Your task to perform on an android device: check battery use Image 0: 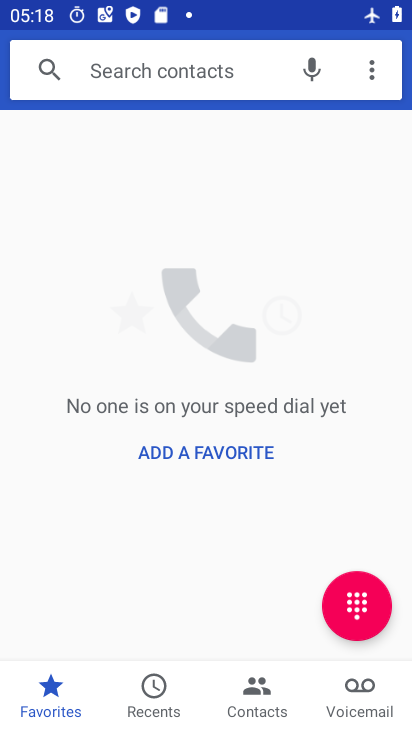
Step 0: press home button
Your task to perform on an android device: check battery use Image 1: 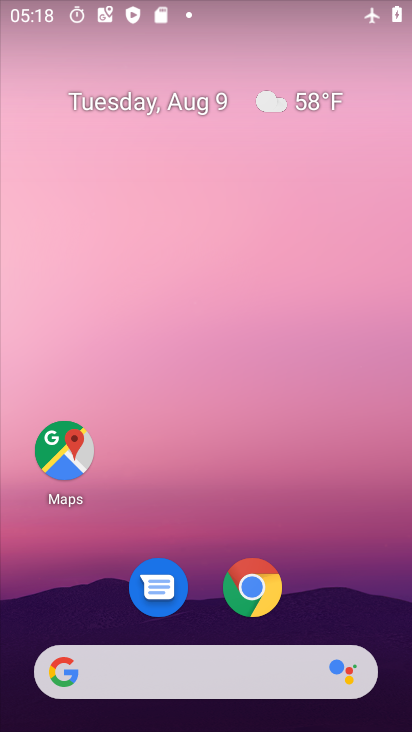
Step 1: click (254, 79)
Your task to perform on an android device: check battery use Image 2: 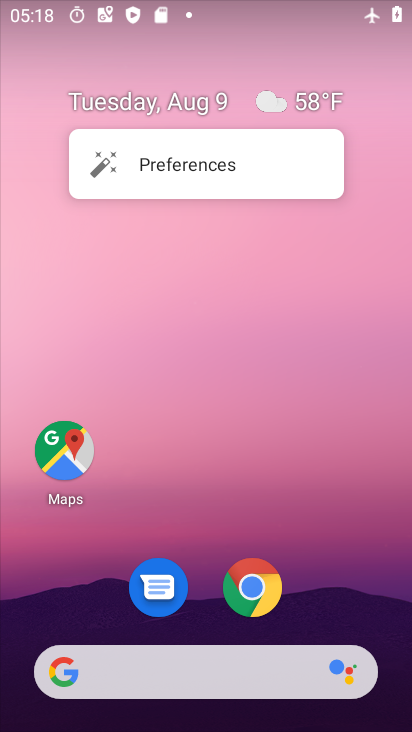
Step 2: drag from (219, 665) to (199, 59)
Your task to perform on an android device: check battery use Image 3: 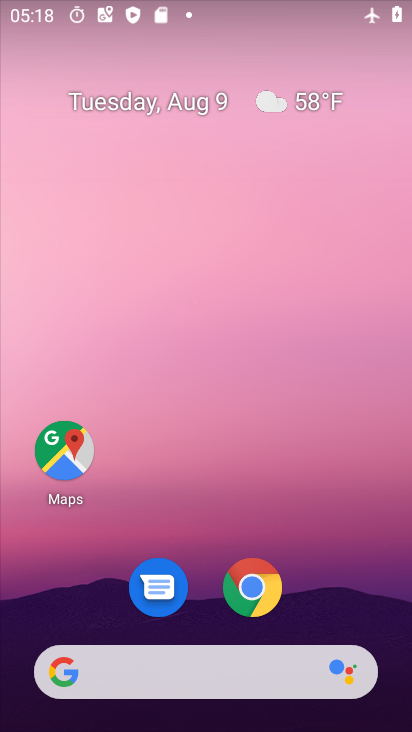
Step 3: drag from (192, 680) to (227, 0)
Your task to perform on an android device: check battery use Image 4: 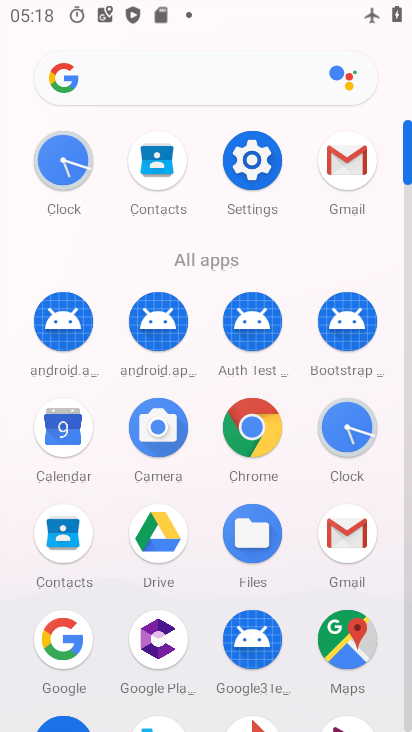
Step 4: click (263, 177)
Your task to perform on an android device: check battery use Image 5: 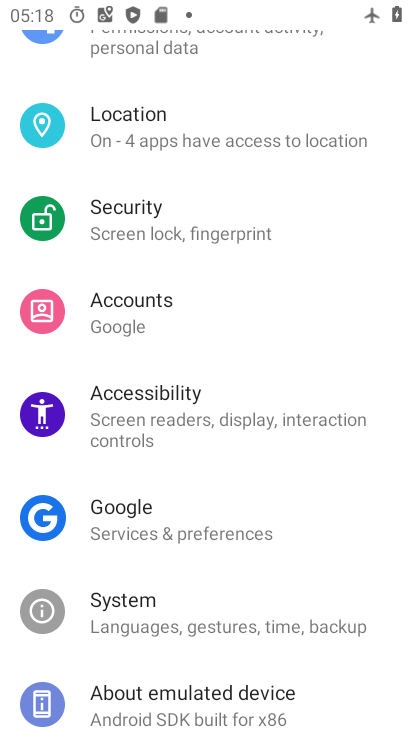
Step 5: drag from (209, 232) to (180, 613)
Your task to perform on an android device: check battery use Image 6: 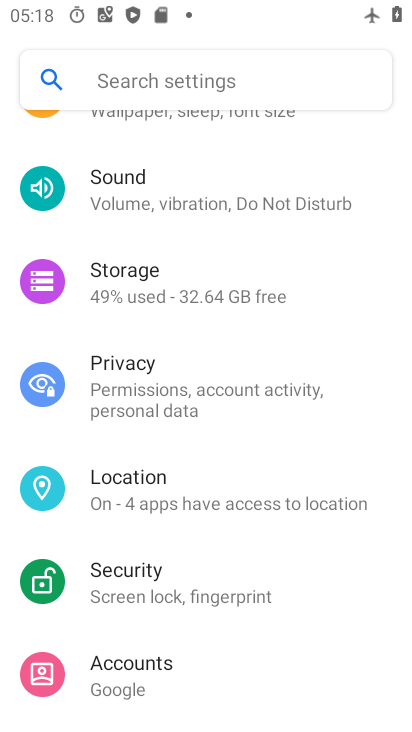
Step 6: drag from (173, 275) to (156, 723)
Your task to perform on an android device: check battery use Image 7: 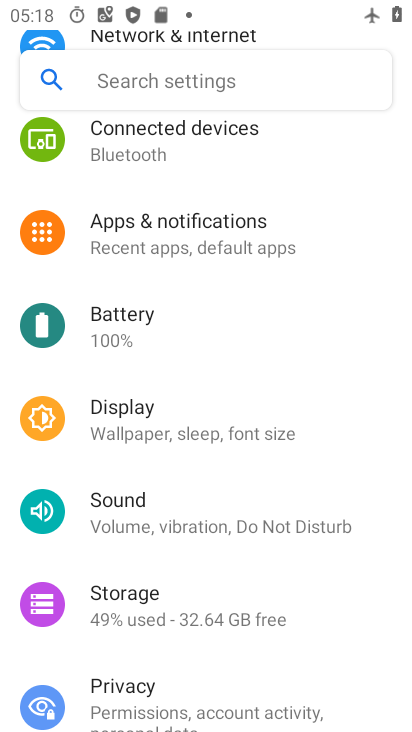
Step 7: click (182, 314)
Your task to perform on an android device: check battery use Image 8: 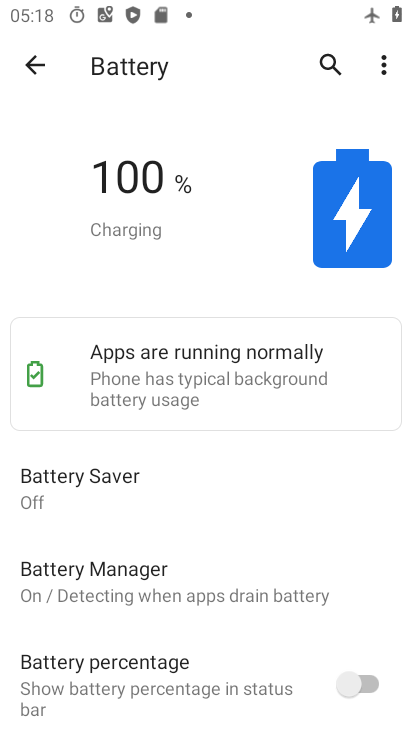
Step 8: click (385, 69)
Your task to perform on an android device: check battery use Image 9: 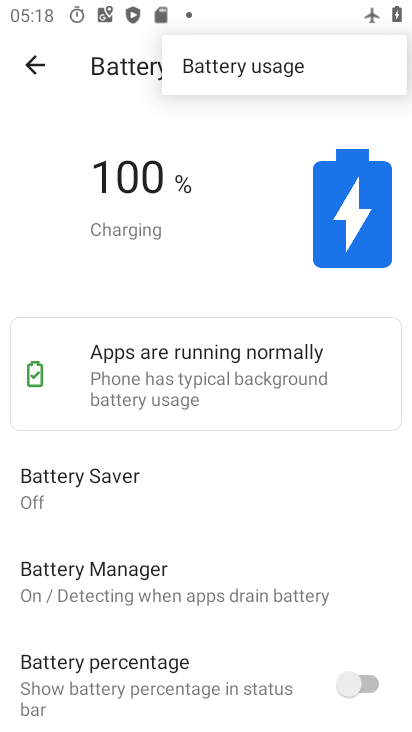
Step 9: click (265, 81)
Your task to perform on an android device: check battery use Image 10: 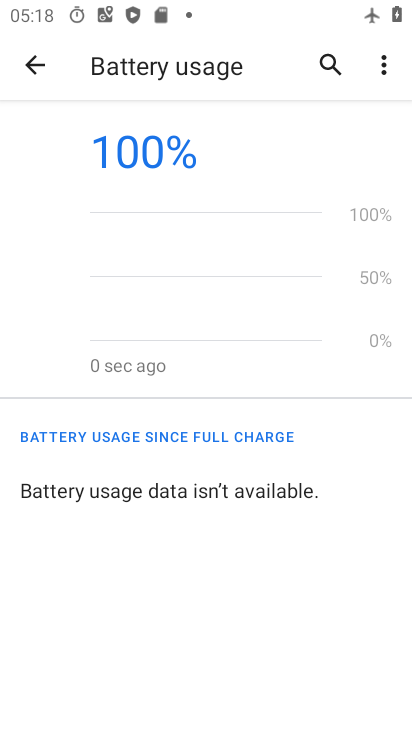
Step 10: task complete